Your task to perform on an android device: What's on my calendar today? Image 0: 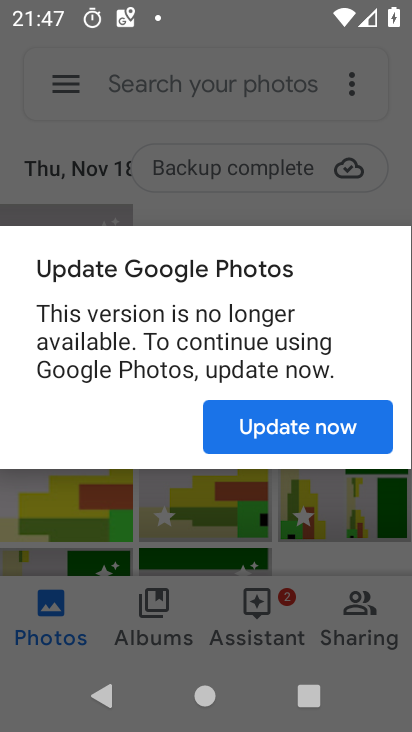
Step 0: press home button
Your task to perform on an android device: What's on my calendar today? Image 1: 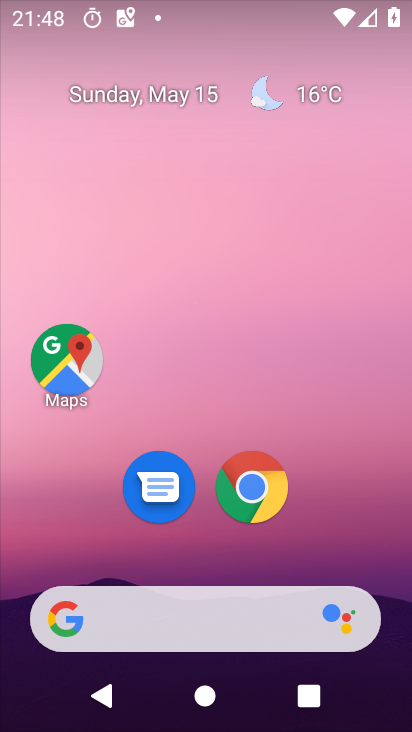
Step 1: drag from (396, 661) to (400, 276)
Your task to perform on an android device: What's on my calendar today? Image 2: 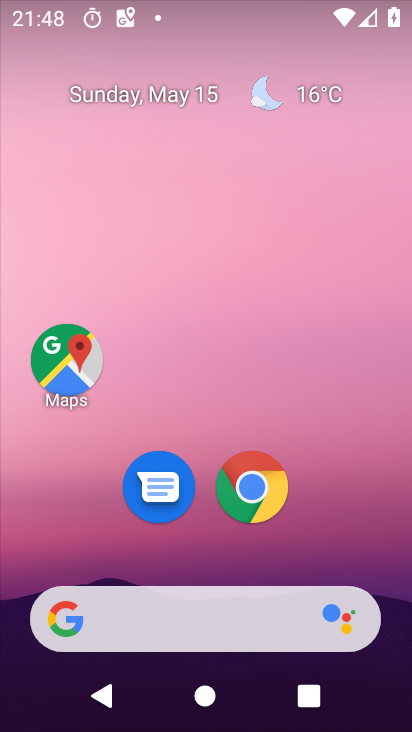
Step 2: drag from (396, 630) to (335, 189)
Your task to perform on an android device: What's on my calendar today? Image 3: 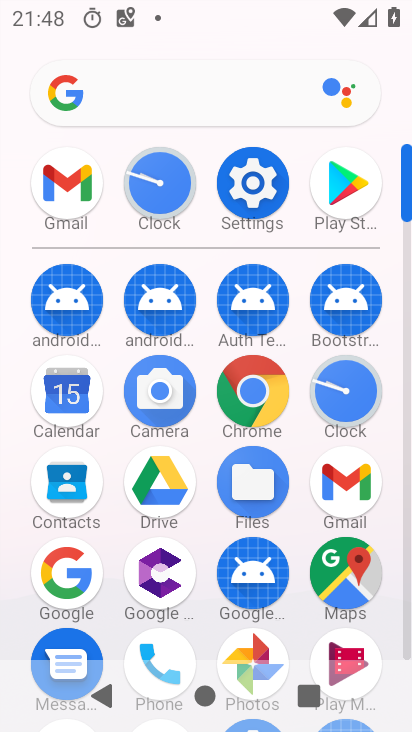
Step 3: click (58, 390)
Your task to perform on an android device: What's on my calendar today? Image 4: 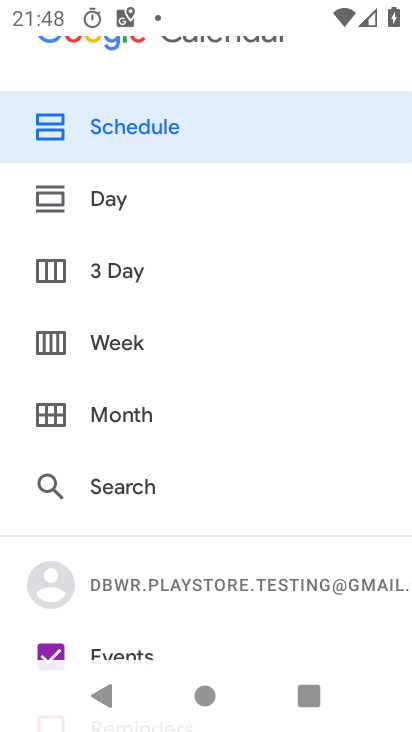
Step 4: click (127, 130)
Your task to perform on an android device: What's on my calendar today? Image 5: 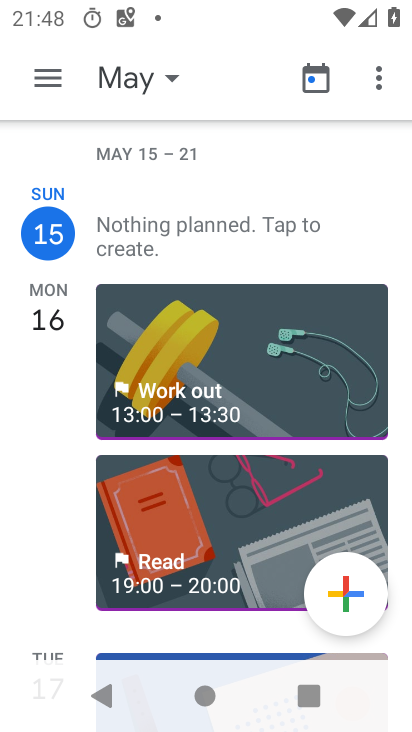
Step 5: click (80, 199)
Your task to perform on an android device: What's on my calendar today? Image 6: 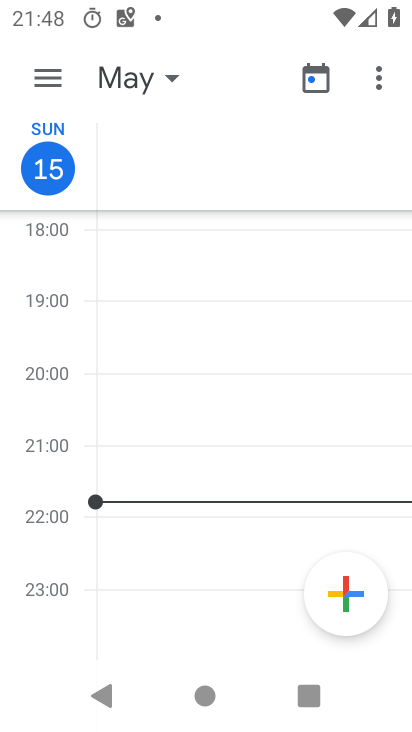
Step 6: click (49, 77)
Your task to perform on an android device: What's on my calendar today? Image 7: 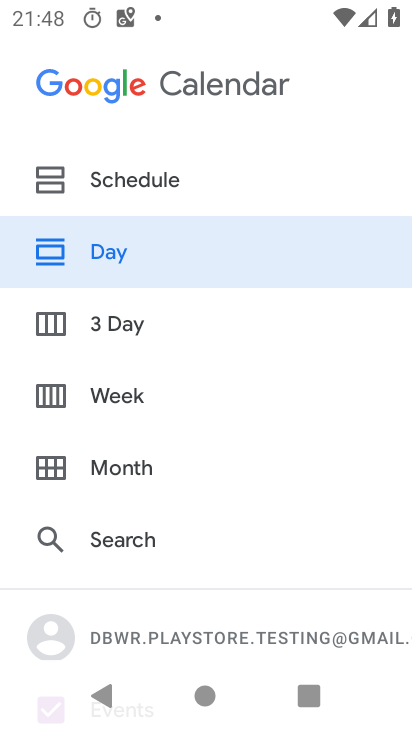
Step 7: click (88, 250)
Your task to perform on an android device: What's on my calendar today? Image 8: 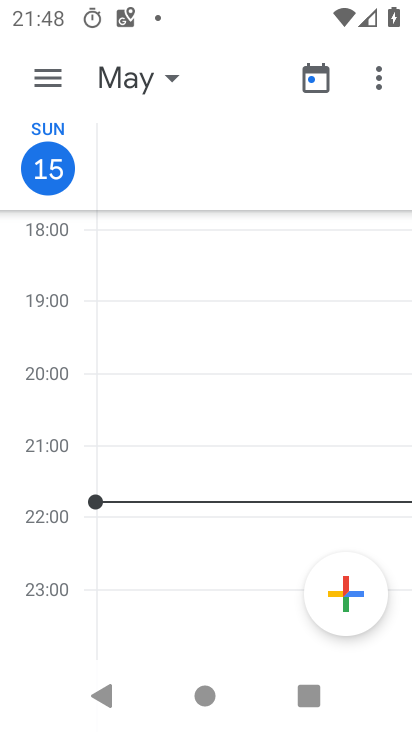
Step 8: click (167, 75)
Your task to perform on an android device: What's on my calendar today? Image 9: 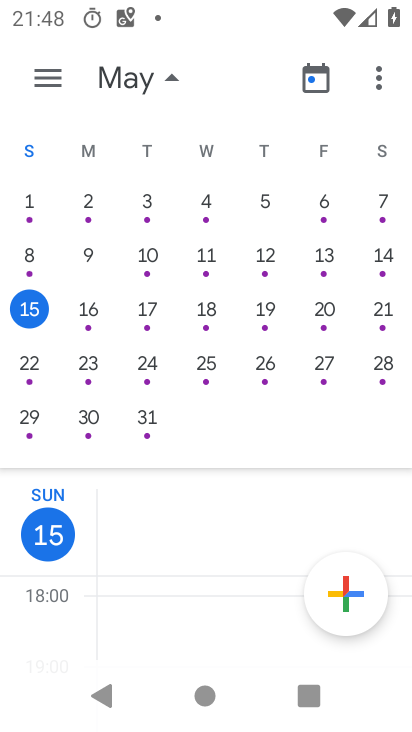
Step 9: click (37, 307)
Your task to perform on an android device: What's on my calendar today? Image 10: 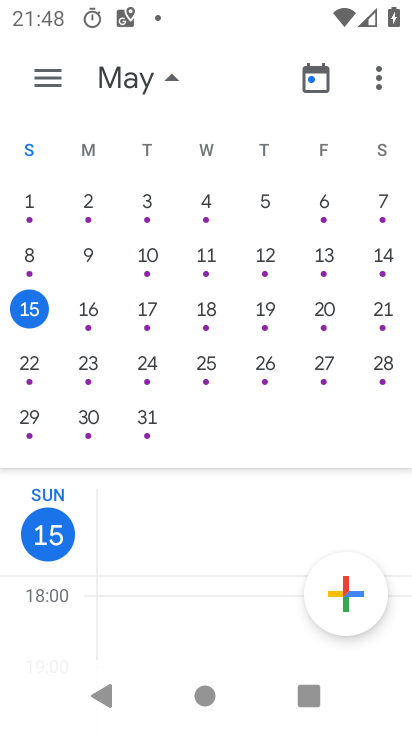
Step 10: click (28, 307)
Your task to perform on an android device: What's on my calendar today? Image 11: 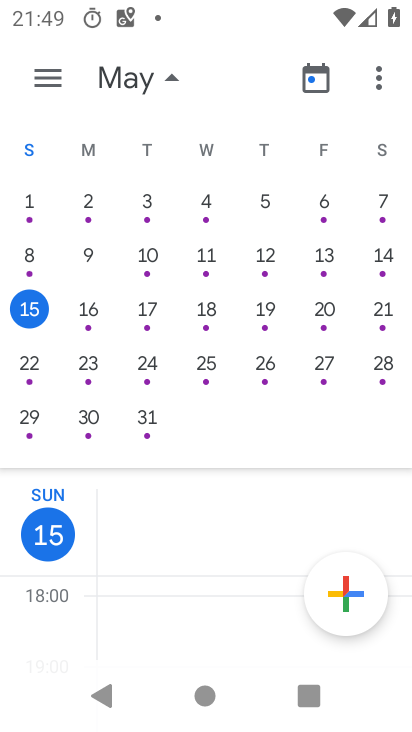
Step 11: task complete